Your task to perform on an android device: snooze an email in the gmail app Image 0: 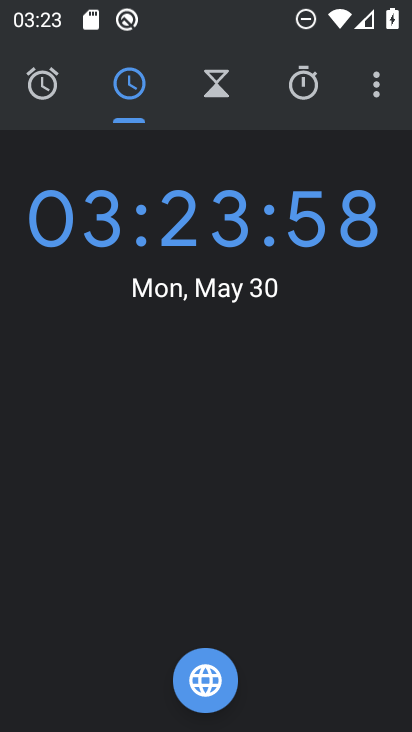
Step 0: press home button
Your task to perform on an android device: snooze an email in the gmail app Image 1: 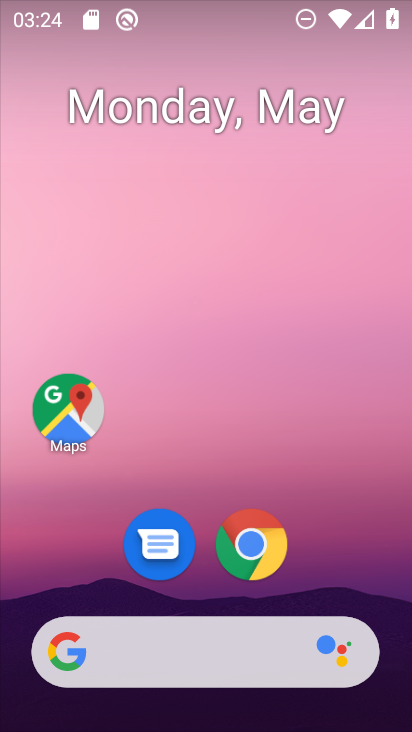
Step 1: drag from (369, 569) to (361, 202)
Your task to perform on an android device: snooze an email in the gmail app Image 2: 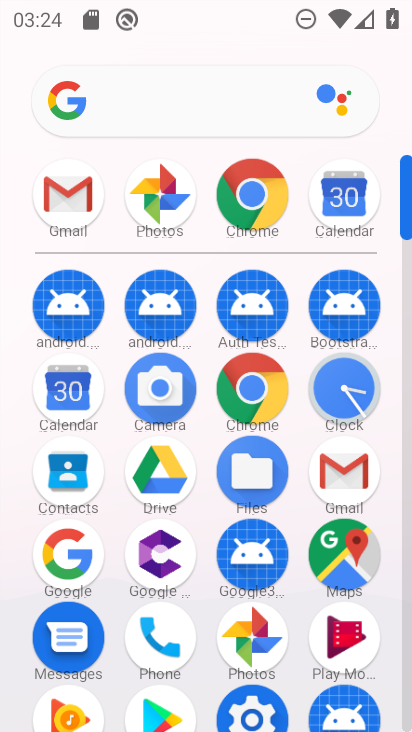
Step 2: click (369, 479)
Your task to perform on an android device: snooze an email in the gmail app Image 3: 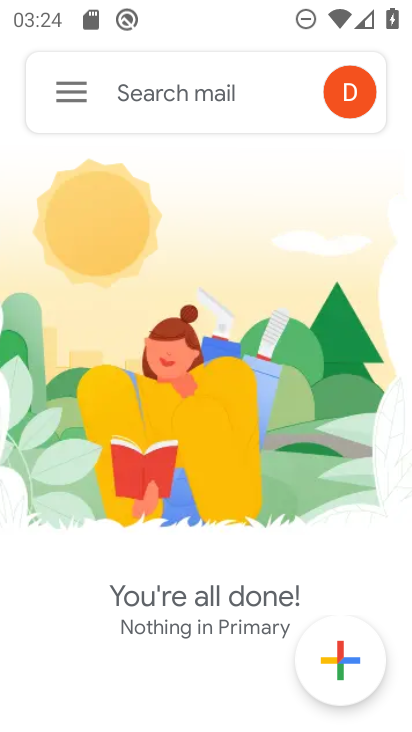
Step 3: click (67, 111)
Your task to perform on an android device: snooze an email in the gmail app Image 4: 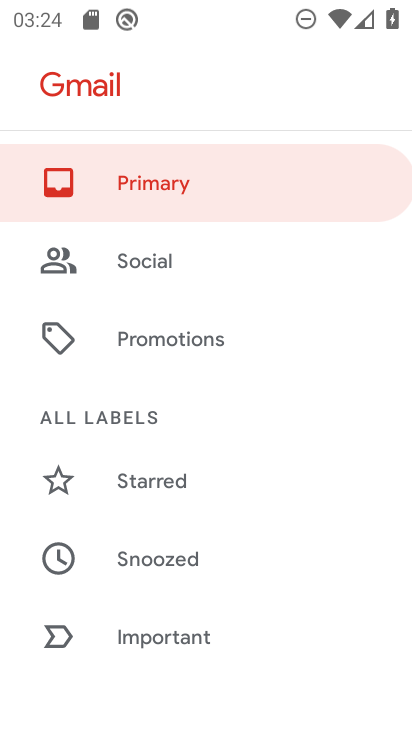
Step 4: drag from (286, 542) to (301, 435)
Your task to perform on an android device: snooze an email in the gmail app Image 5: 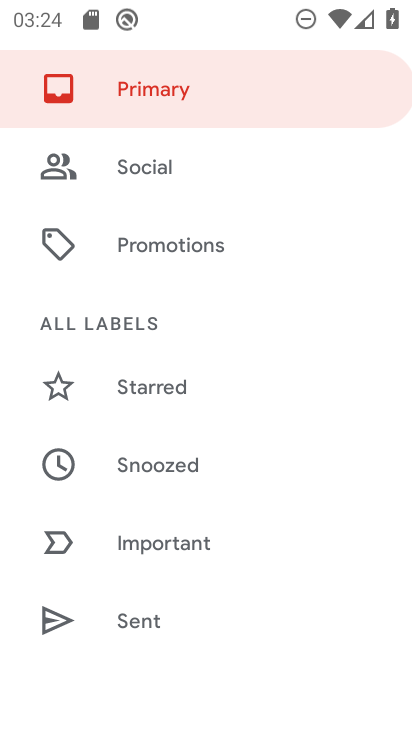
Step 5: drag from (307, 543) to (308, 380)
Your task to perform on an android device: snooze an email in the gmail app Image 6: 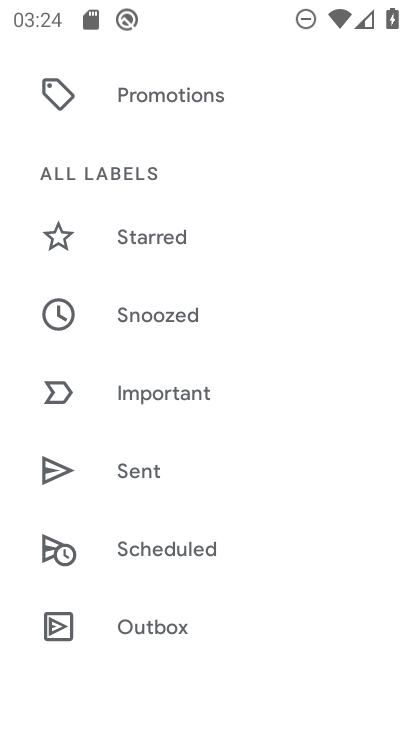
Step 6: drag from (308, 516) to (300, 349)
Your task to perform on an android device: snooze an email in the gmail app Image 7: 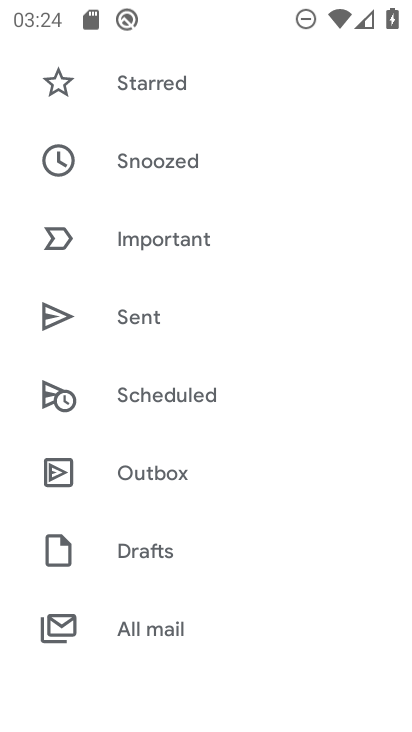
Step 7: drag from (311, 508) to (312, 294)
Your task to perform on an android device: snooze an email in the gmail app Image 8: 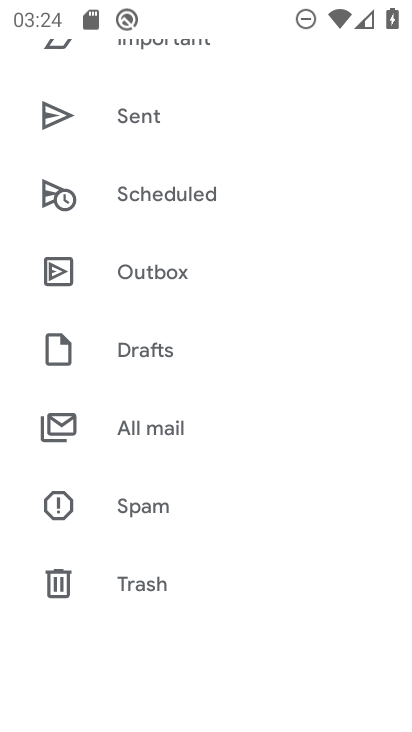
Step 8: drag from (314, 188) to (319, 335)
Your task to perform on an android device: snooze an email in the gmail app Image 9: 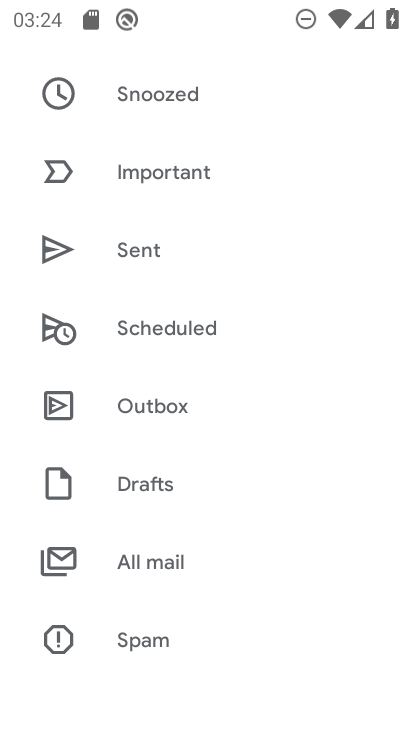
Step 9: drag from (304, 172) to (311, 388)
Your task to perform on an android device: snooze an email in the gmail app Image 10: 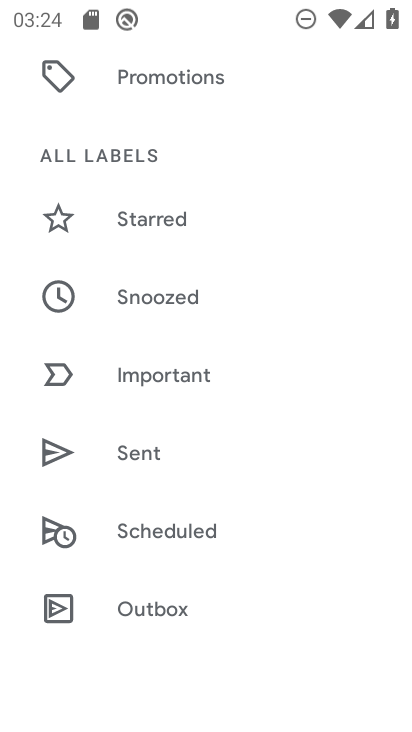
Step 10: click (184, 295)
Your task to perform on an android device: snooze an email in the gmail app Image 11: 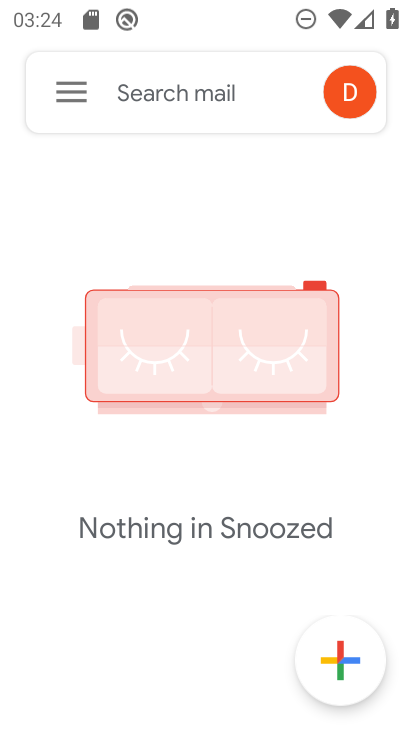
Step 11: task complete